Your task to perform on an android device: turn on airplane mode Image 0: 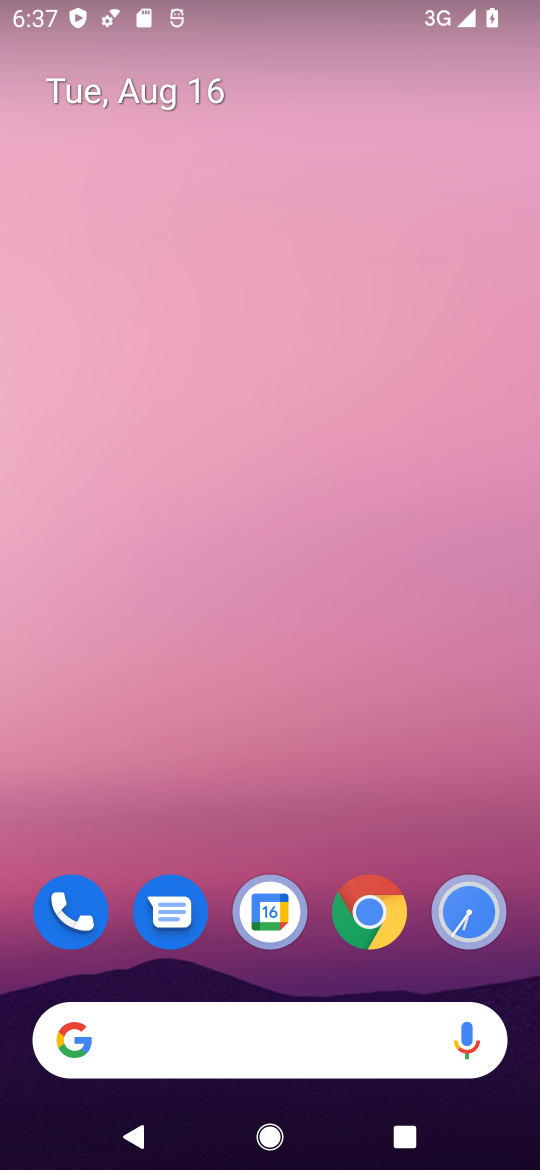
Step 0: drag from (419, 963) to (402, 295)
Your task to perform on an android device: turn on airplane mode Image 1: 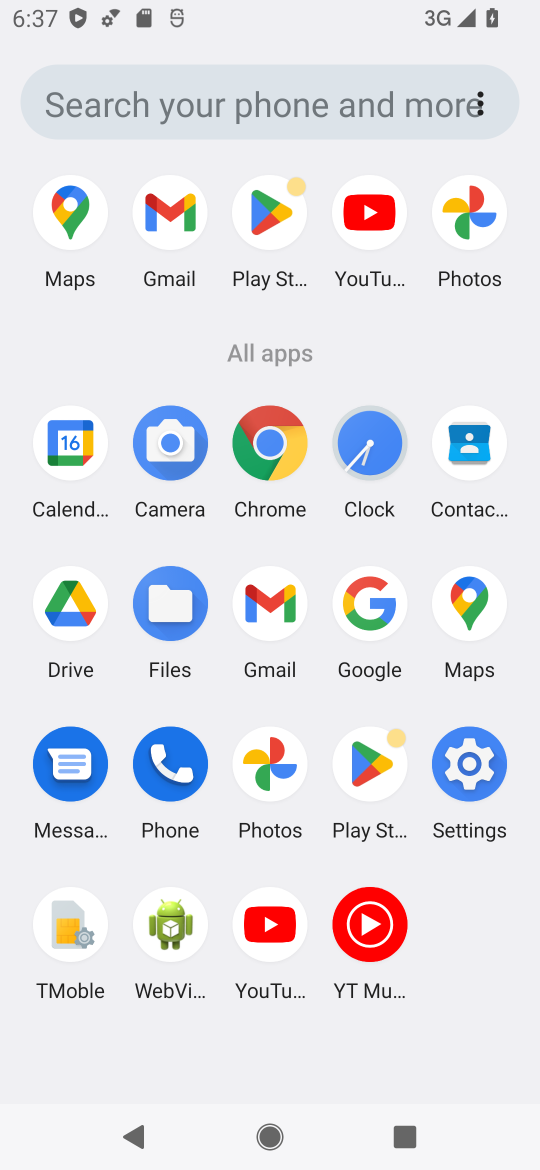
Step 1: click (474, 768)
Your task to perform on an android device: turn on airplane mode Image 2: 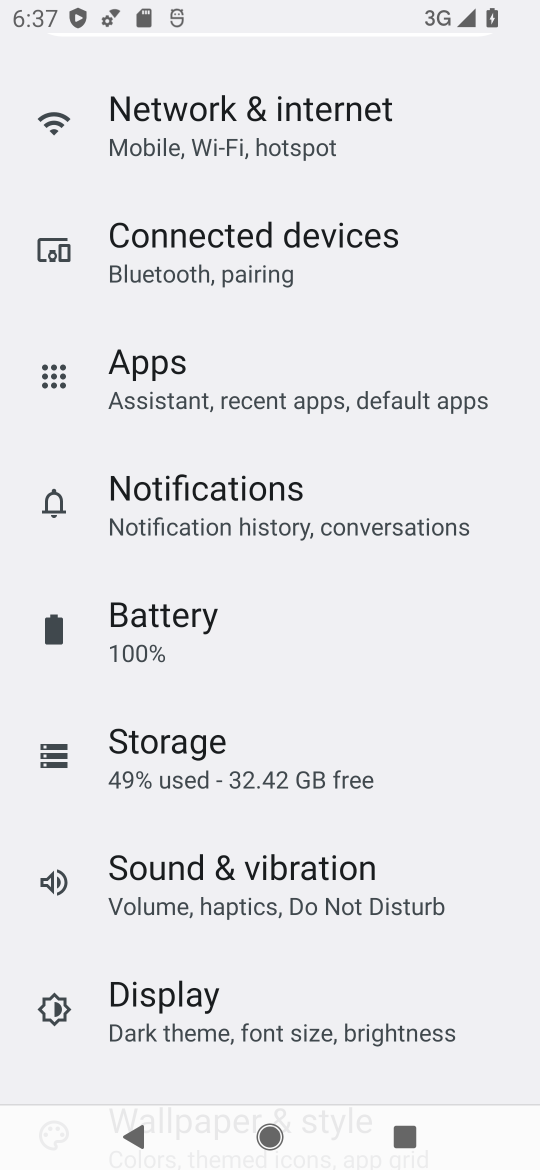
Step 2: drag from (449, 376) to (457, 760)
Your task to perform on an android device: turn on airplane mode Image 3: 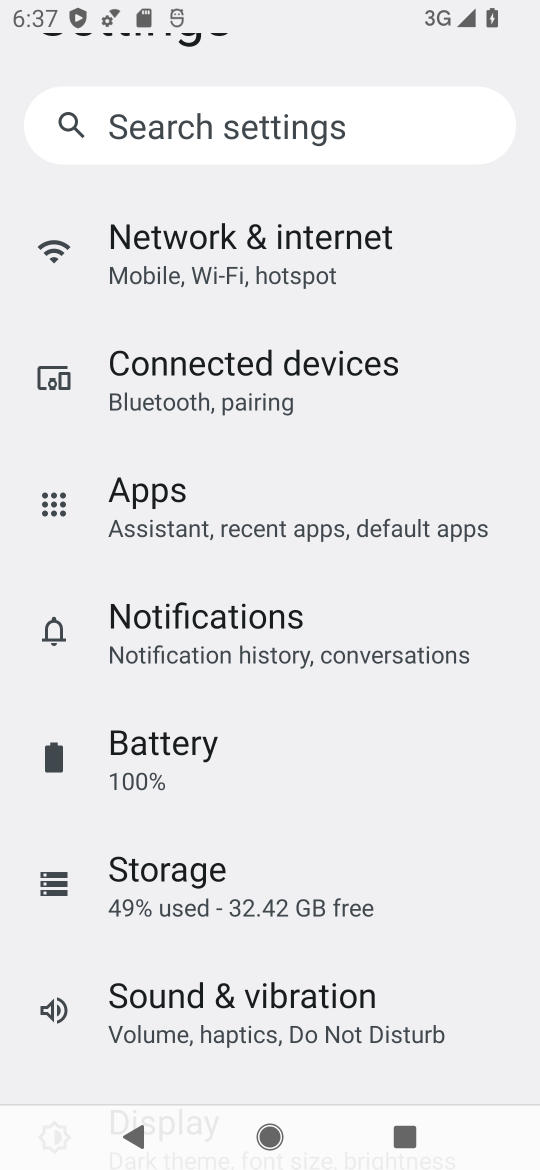
Step 3: click (166, 264)
Your task to perform on an android device: turn on airplane mode Image 4: 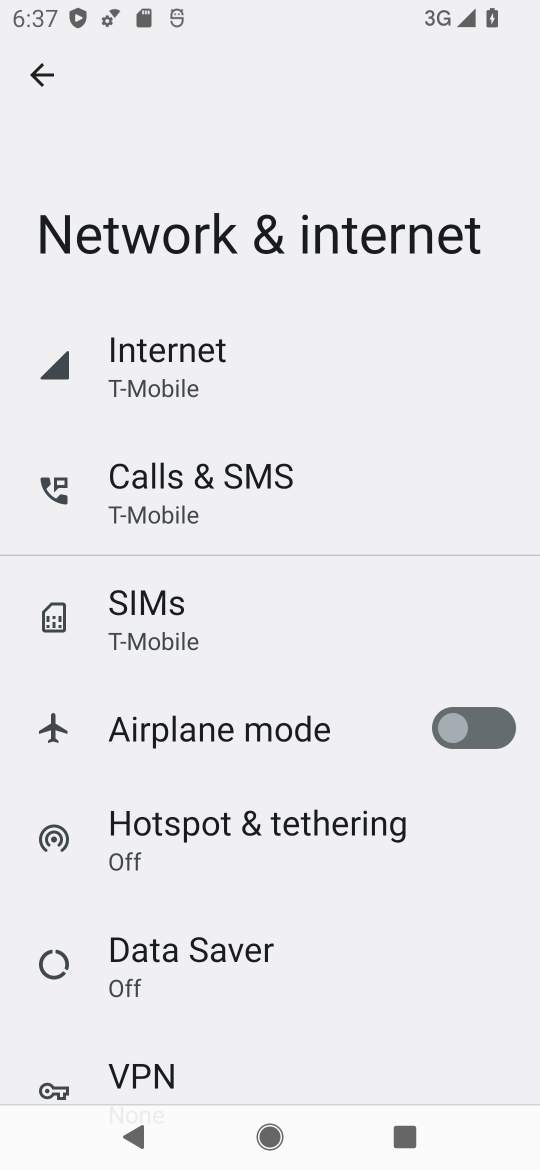
Step 4: click (479, 728)
Your task to perform on an android device: turn on airplane mode Image 5: 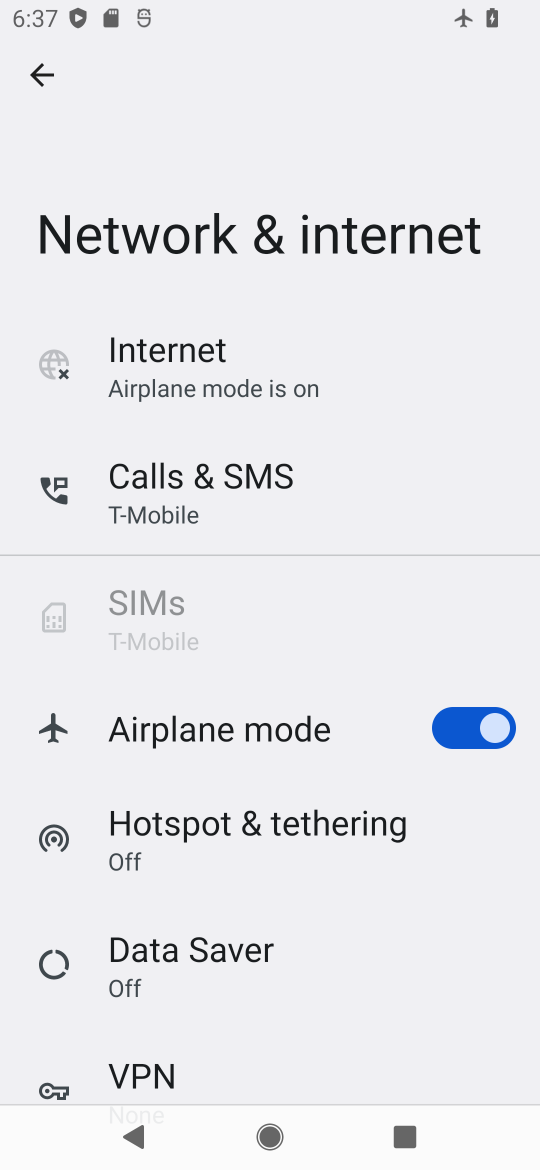
Step 5: task complete